Your task to perform on an android device: turn off notifications settings in the gmail app Image 0: 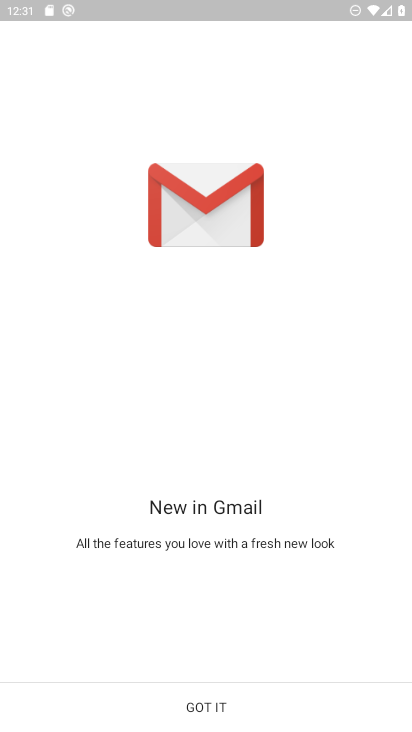
Step 0: press home button
Your task to perform on an android device: turn off notifications settings in the gmail app Image 1: 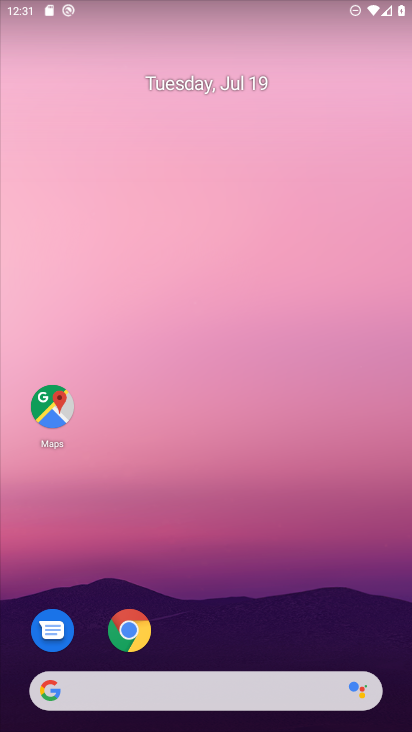
Step 1: drag from (153, 660) to (311, 169)
Your task to perform on an android device: turn off notifications settings in the gmail app Image 2: 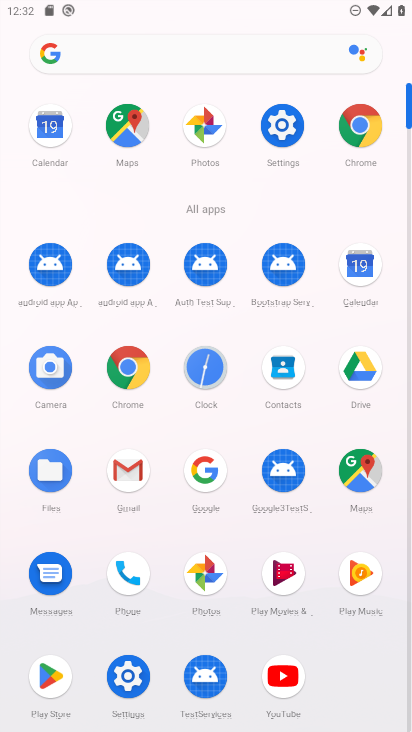
Step 2: click (134, 476)
Your task to perform on an android device: turn off notifications settings in the gmail app Image 3: 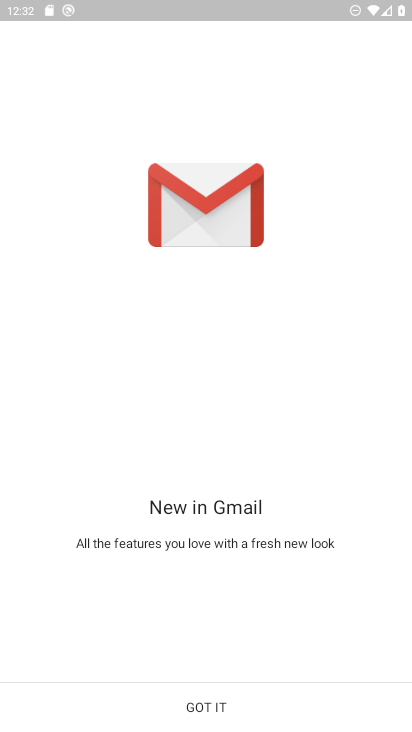
Step 3: click (210, 709)
Your task to perform on an android device: turn off notifications settings in the gmail app Image 4: 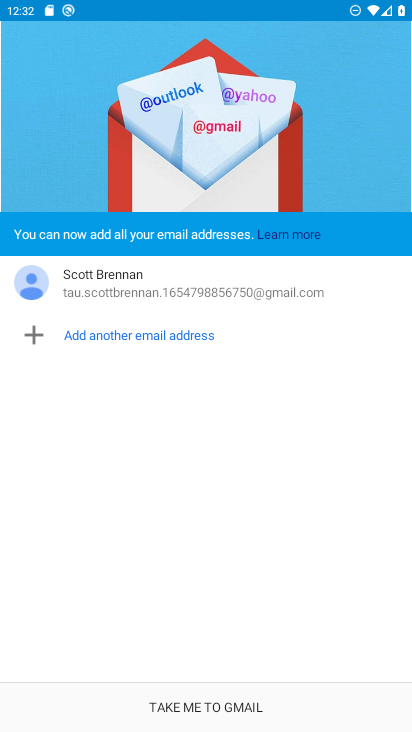
Step 4: click (210, 709)
Your task to perform on an android device: turn off notifications settings in the gmail app Image 5: 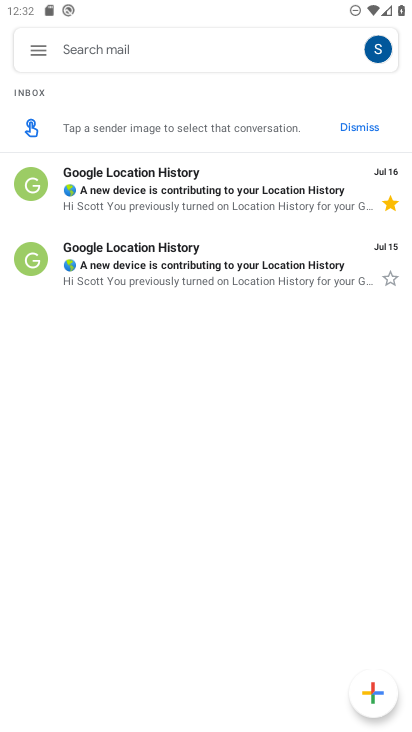
Step 5: click (40, 51)
Your task to perform on an android device: turn off notifications settings in the gmail app Image 6: 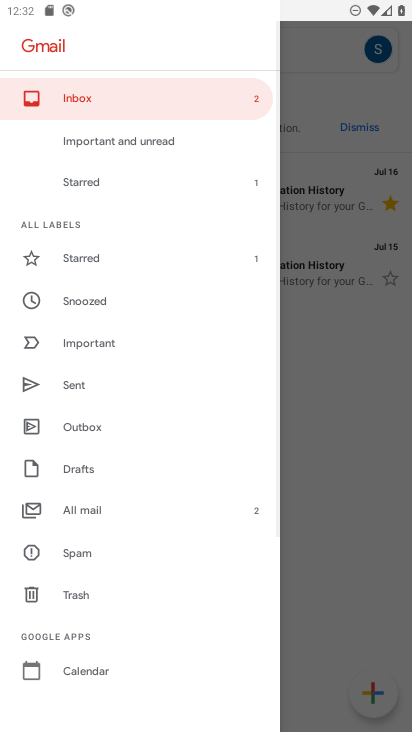
Step 6: drag from (150, 651) to (179, 196)
Your task to perform on an android device: turn off notifications settings in the gmail app Image 7: 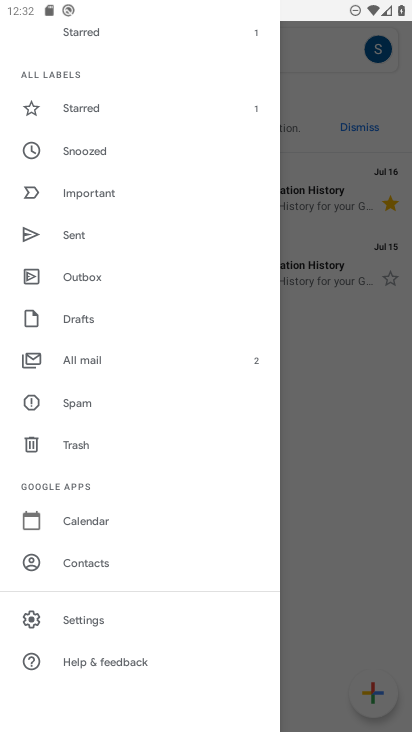
Step 7: click (102, 619)
Your task to perform on an android device: turn off notifications settings in the gmail app Image 8: 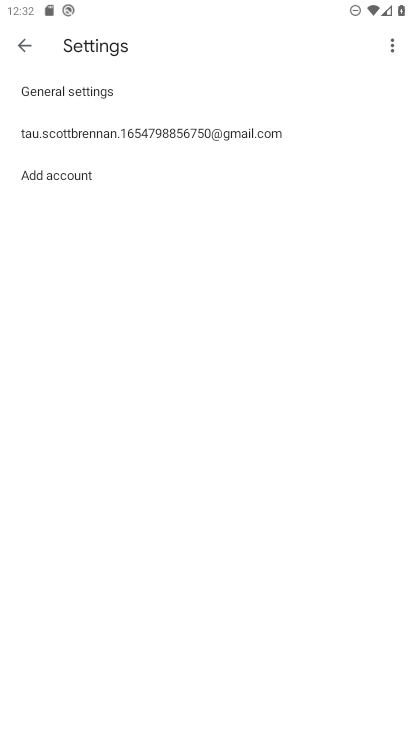
Step 8: click (177, 125)
Your task to perform on an android device: turn off notifications settings in the gmail app Image 9: 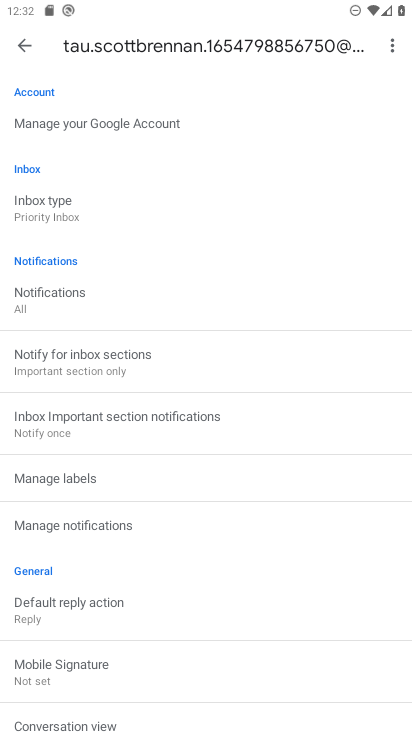
Step 9: click (68, 298)
Your task to perform on an android device: turn off notifications settings in the gmail app Image 10: 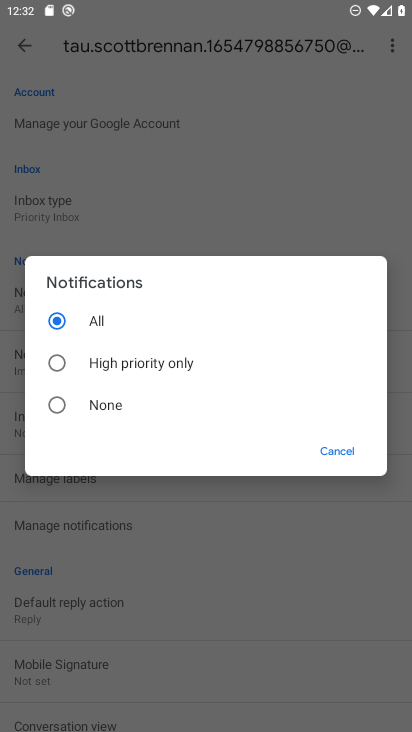
Step 10: click (53, 408)
Your task to perform on an android device: turn off notifications settings in the gmail app Image 11: 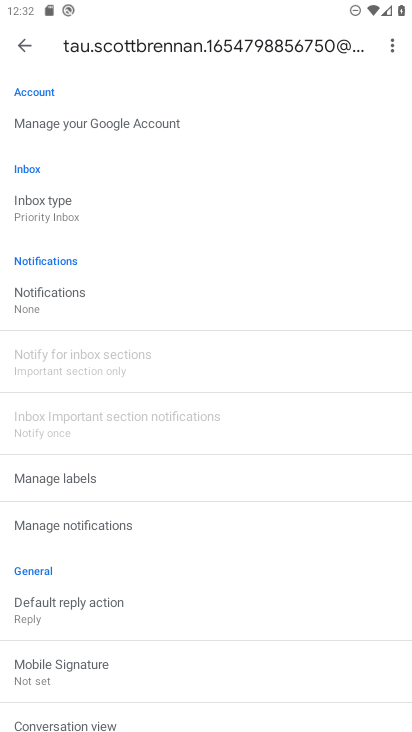
Step 11: task complete